Your task to perform on an android device: install app "Messenger Lite" Image 0: 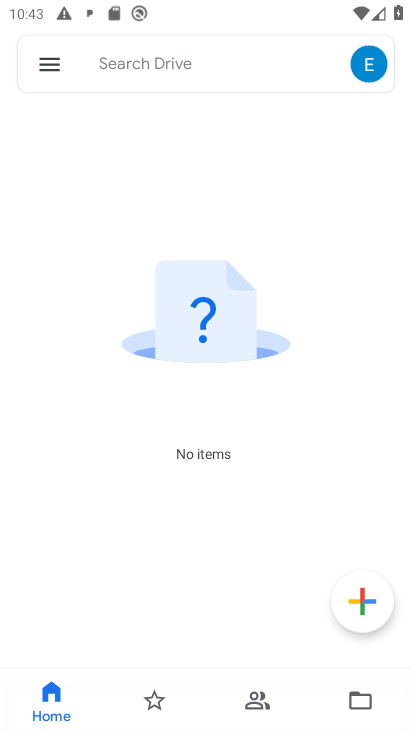
Step 0: press back button
Your task to perform on an android device: install app "Messenger Lite" Image 1: 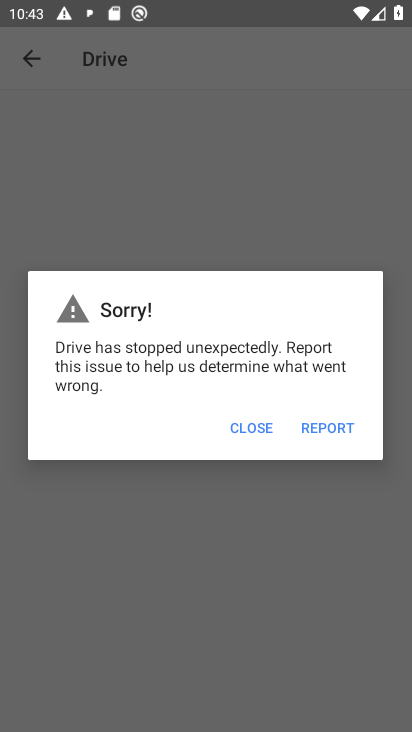
Step 1: press home button
Your task to perform on an android device: install app "Messenger Lite" Image 2: 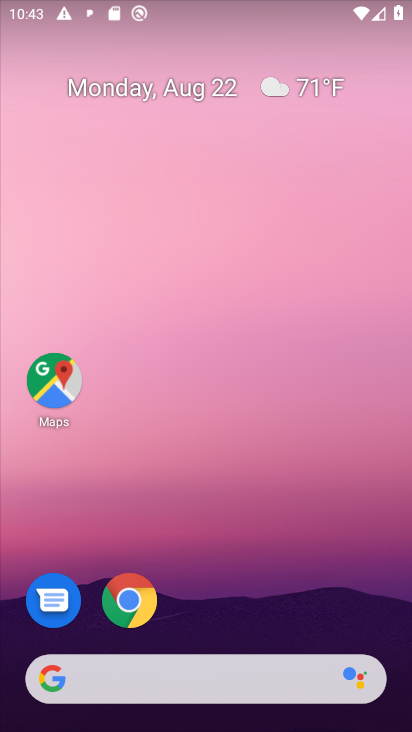
Step 2: drag from (200, 563) to (246, 152)
Your task to perform on an android device: install app "Messenger Lite" Image 3: 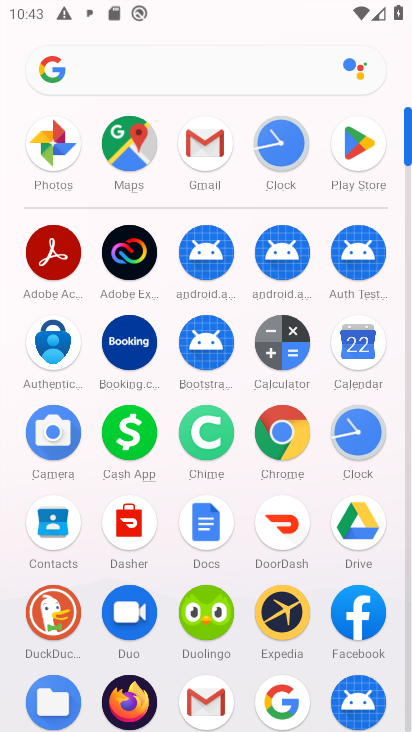
Step 3: click (346, 137)
Your task to perform on an android device: install app "Messenger Lite" Image 4: 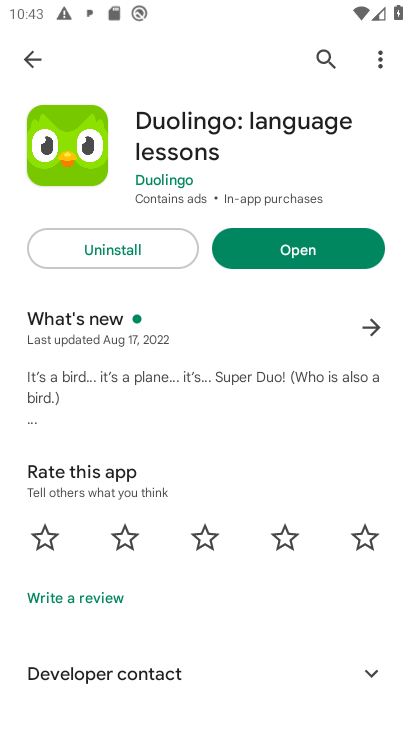
Step 4: click (319, 61)
Your task to perform on an android device: install app "Messenger Lite" Image 5: 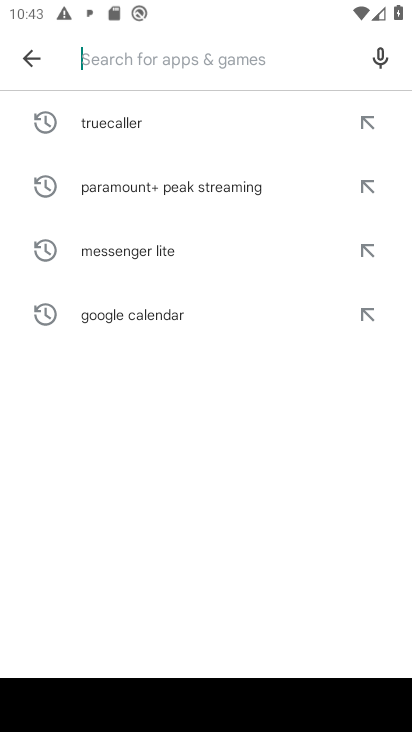
Step 5: type "Messenger Lite"
Your task to perform on an android device: install app "Messenger Lite" Image 6: 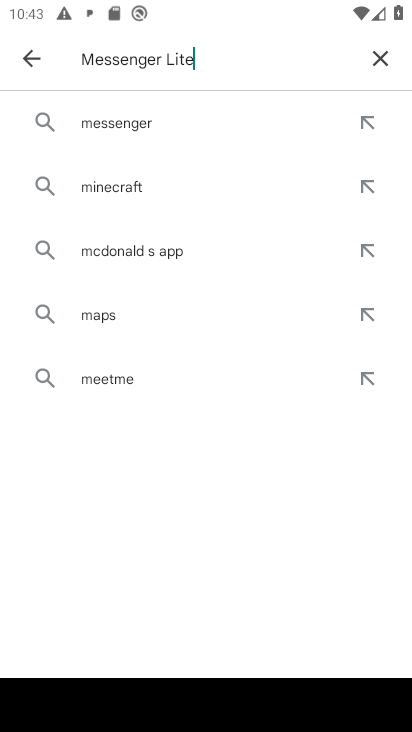
Step 6: type ""
Your task to perform on an android device: install app "Messenger Lite" Image 7: 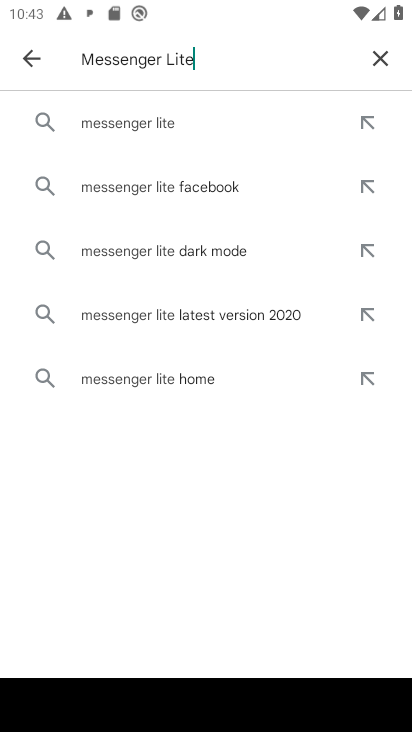
Step 7: click (192, 121)
Your task to perform on an android device: install app "Messenger Lite" Image 8: 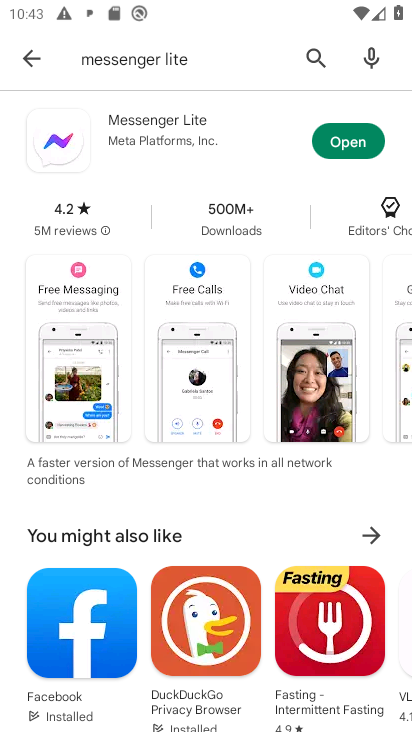
Step 8: click (233, 143)
Your task to perform on an android device: install app "Messenger Lite" Image 9: 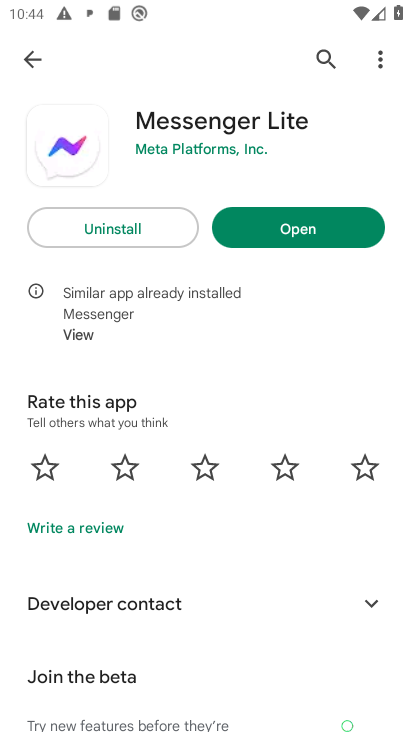
Step 9: task complete